Your task to perform on an android device: see sites visited before in the chrome app Image 0: 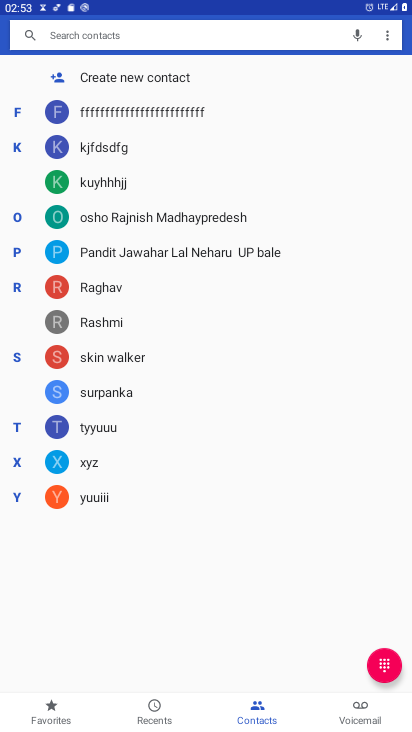
Step 0: press home button
Your task to perform on an android device: see sites visited before in the chrome app Image 1: 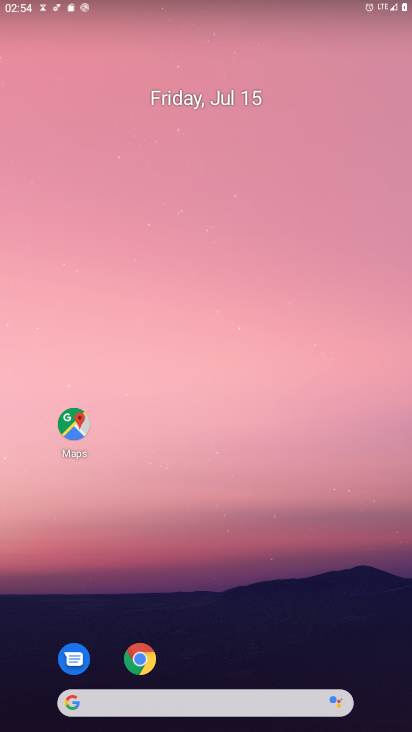
Step 1: drag from (249, 679) to (291, 168)
Your task to perform on an android device: see sites visited before in the chrome app Image 2: 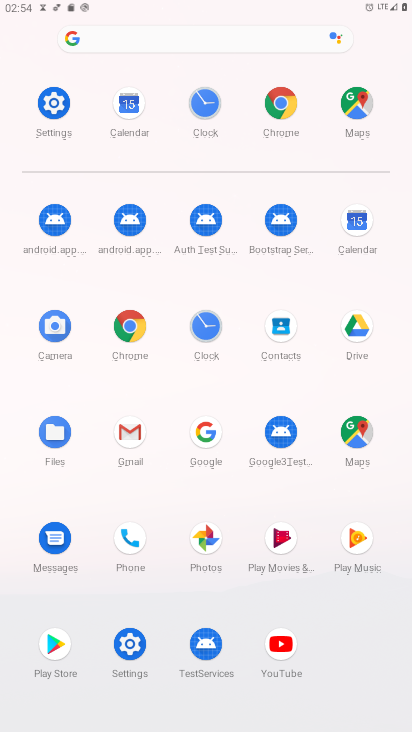
Step 2: click (282, 102)
Your task to perform on an android device: see sites visited before in the chrome app Image 3: 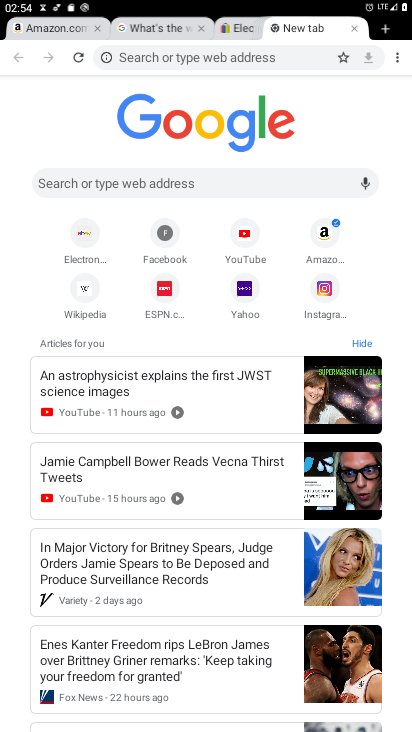
Step 3: click (390, 59)
Your task to perform on an android device: see sites visited before in the chrome app Image 4: 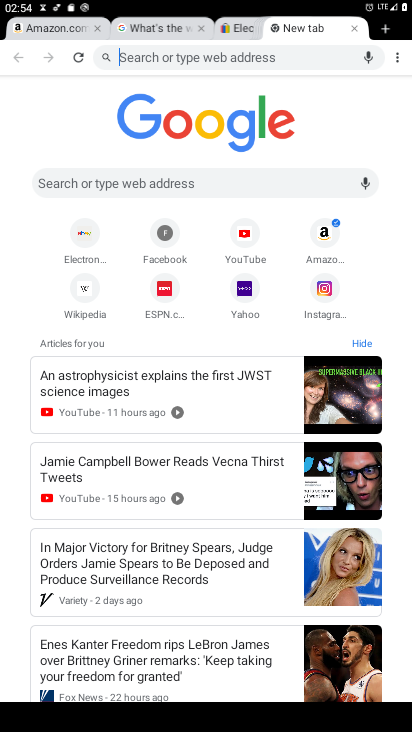
Step 4: click (409, 56)
Your task to perform on an android device: see sites visited before in the chrome app Image 5: 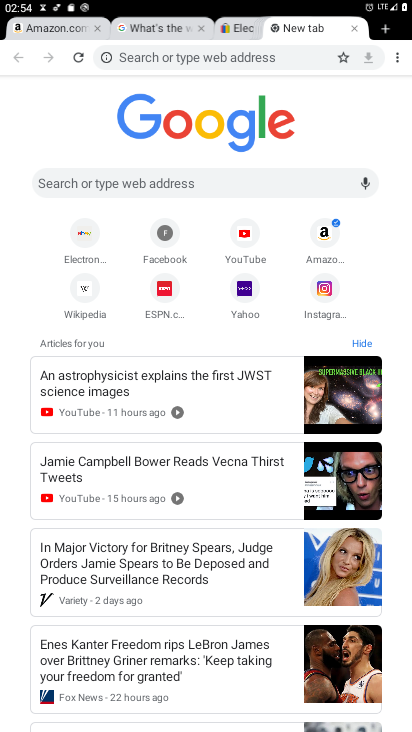
Step 5: click (395, 59)
Your task to perform on an android device: see sites visited before in the chrome app Image 6: 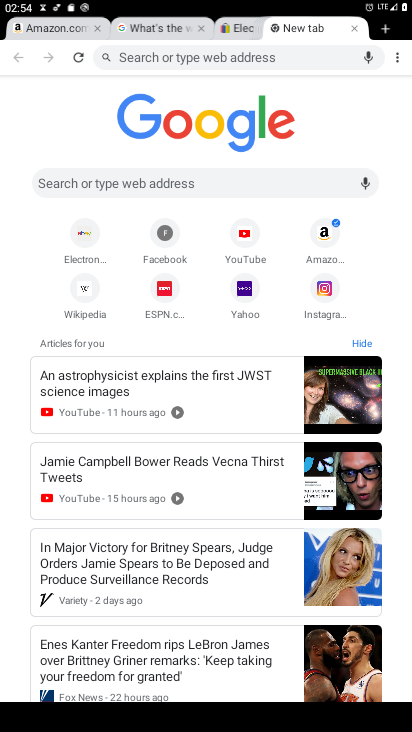
Step 6: click (392, 59)
Your task to perform on an android device: see sites visited before in the chrome app Image 7: 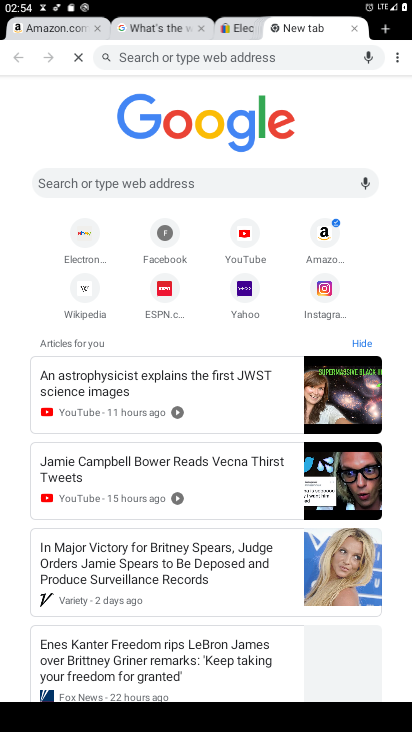
Step 7: click (392, 59)
Your task to perform on an android device: see sites visited before in the chrome app Image 8: 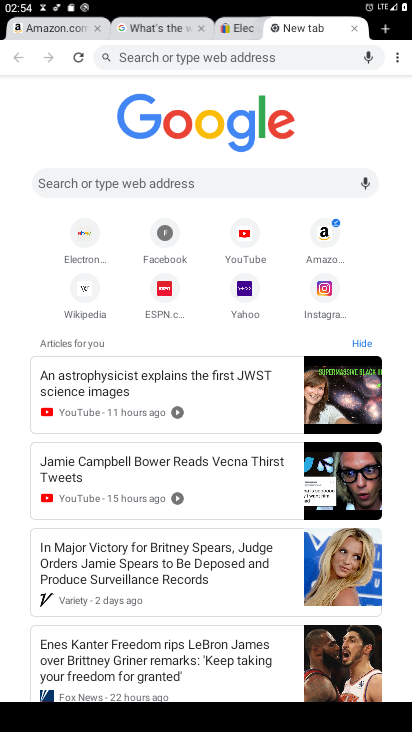
Step 8: click (392, 59)
Your task to perform on an android device: see sites visited before in the chrome app Image 9: 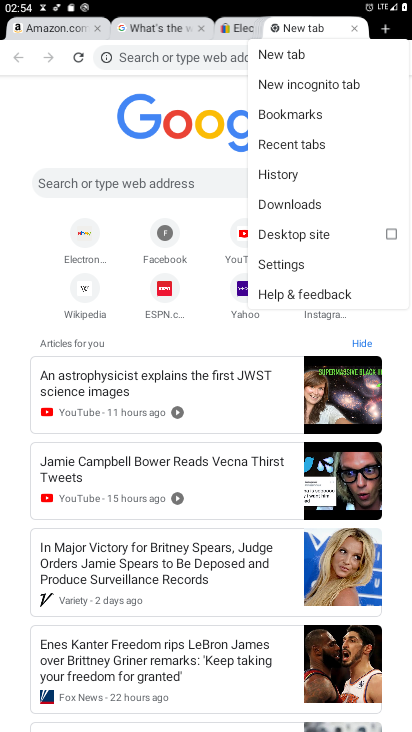
Step 9: click (296, 168)
Your task to perform on an android device: see sites visited before in the chrome app Image 10: 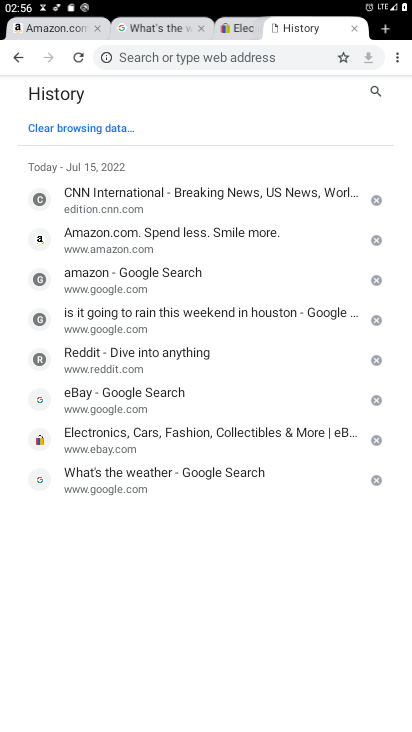
Step 10: task complete